Your task to perform on an android device: Go to eBay Image 0: 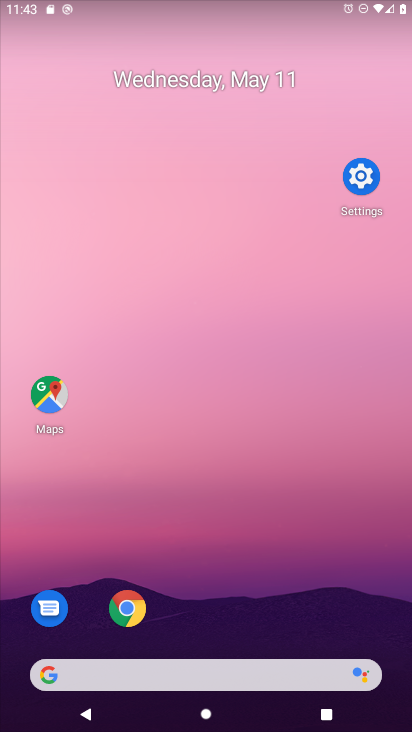
Step 0: click (109, 135)
Your task to perform on an android device: Go to eBay Image 1: 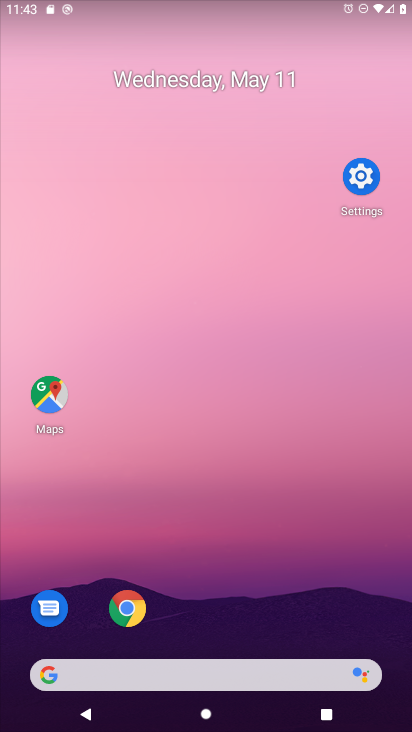
Step 1: click (202, 181)
Your task to perform on an android device: Go to eBay Image 2: 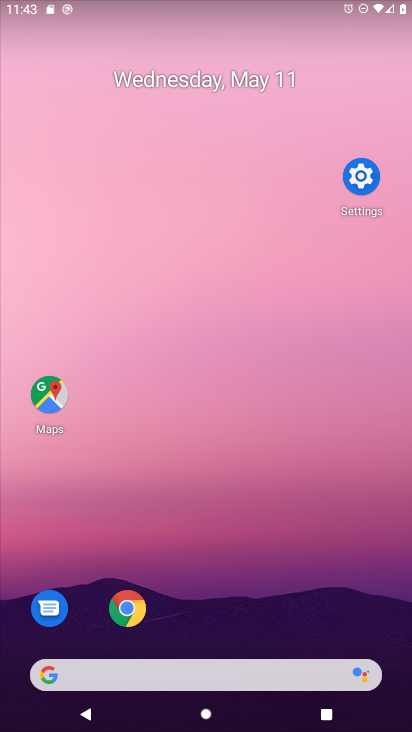
Step 2: drag from (266, 559) to (76, 192)
Your task to perform on an android device: Go to eBay Image 3: 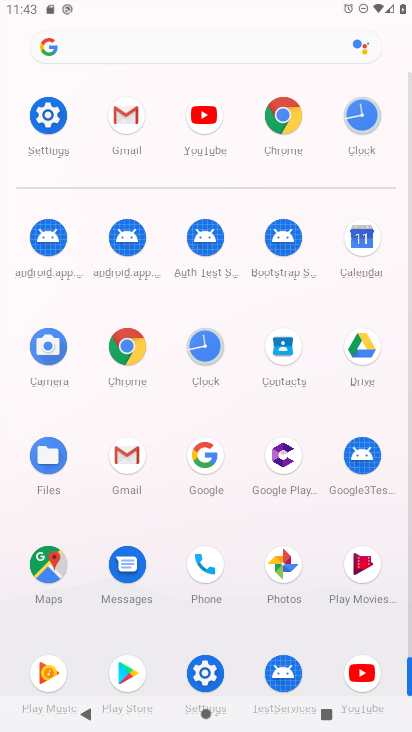
Step 3: click (279, 116)
Your task to perform on an android device: Go to eBay Image 4: 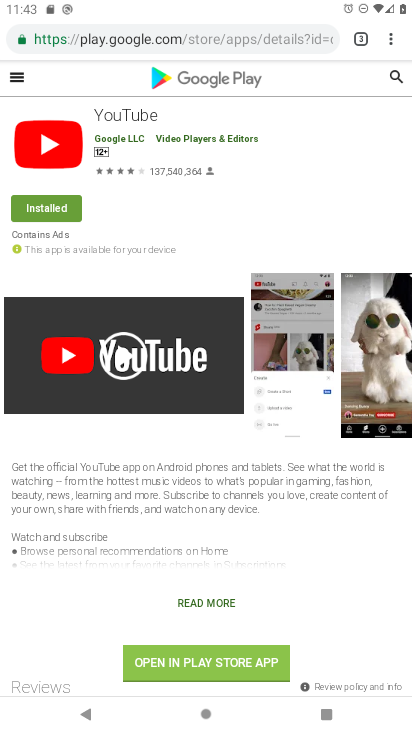
Step 4: press back button
Your task to perform on an android device: Go to eBay Image 5: 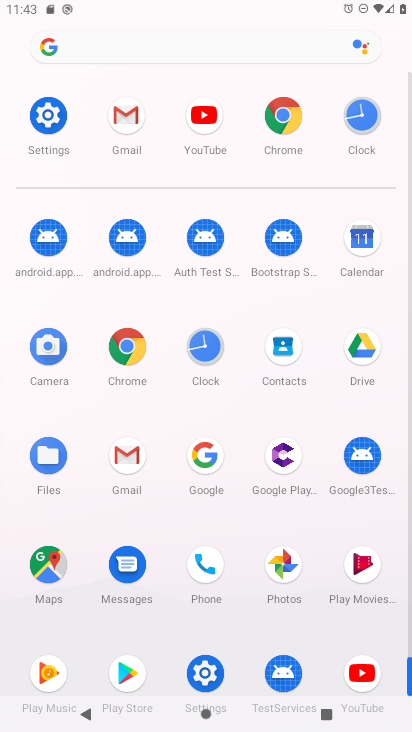
Step 5: click (285, 107)
Your task to perform on an android device: Go to eBay Image 6: 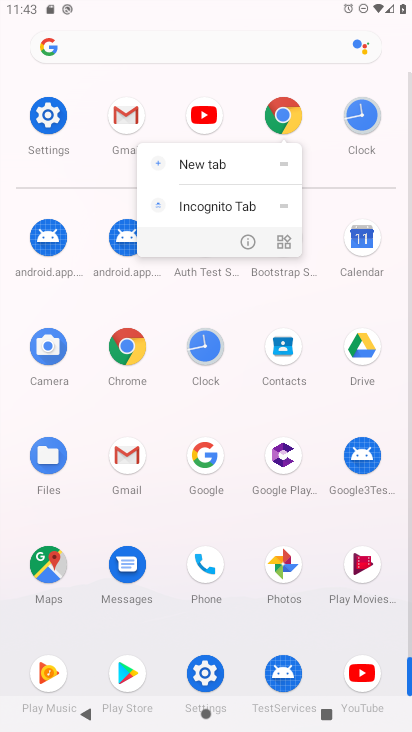
Step 6: click (222, 165)
Your task to perform on an android device: Go to eBay Image 7: 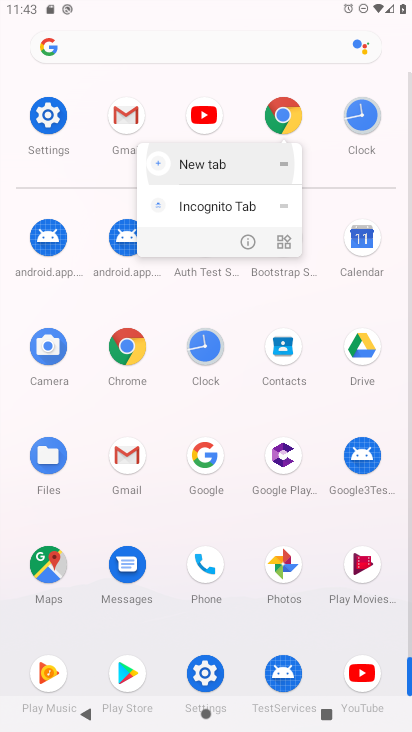
Step 7: click (222, 165)
Your task to perform on an android device: Go to eBay Image 8: 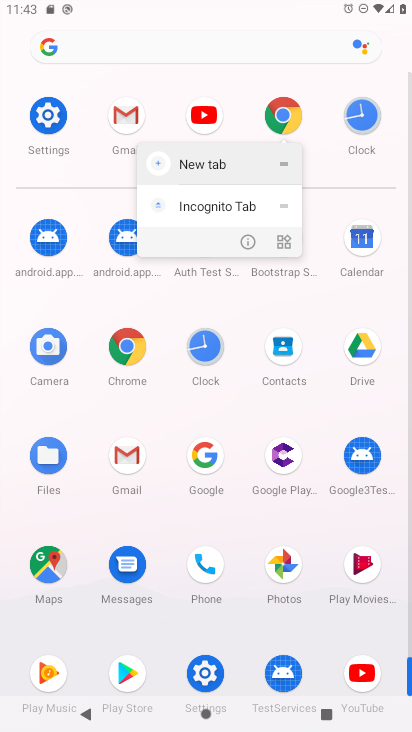
Step 8: click (222, 165)
Your task to perform on an android device: Go to eBay Image 9: 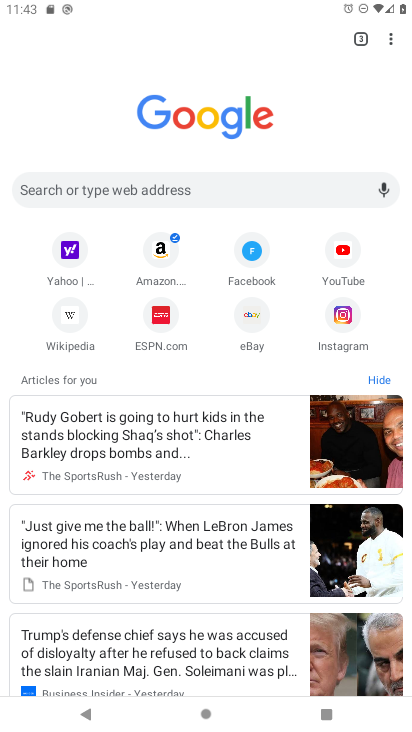
Step 9: click (254, 305)
Your task to perform on an android device: Go to eBay Image 10: 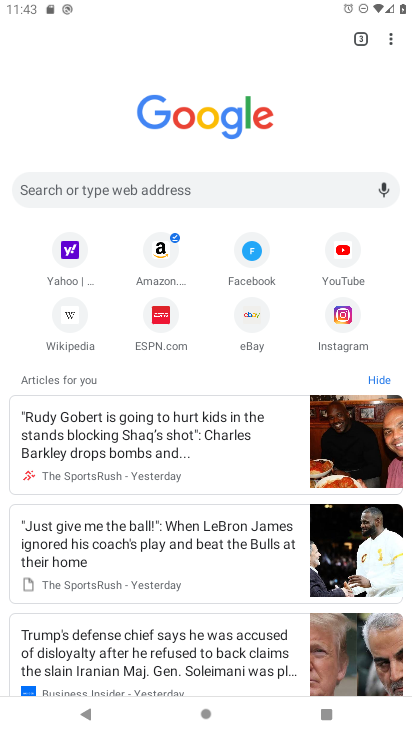
Step 10: click (254, 305)
Your task to perform on an android device: Go to eBay Image 11: 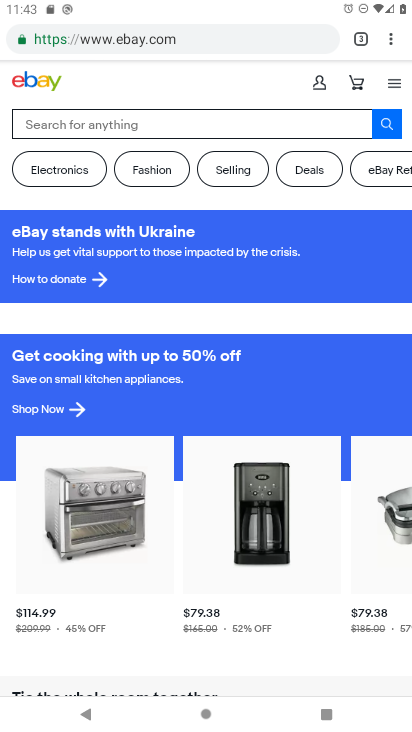
Step 11: task complete